Your task to perform on an android device: open chrome and create a bookmark for the current page Image 0: 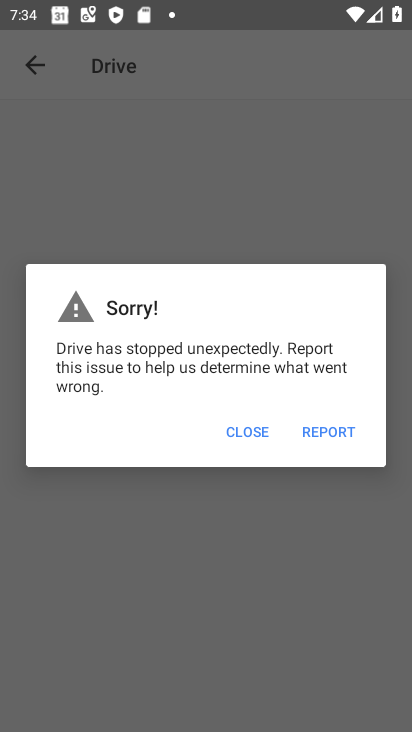
Step 0: press home button
Your task to perform on an android device: open chrome and create a bookmark for the current page Image 1: 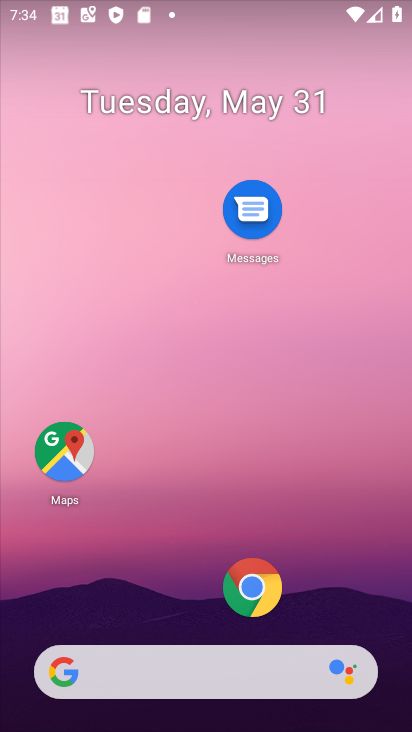
Step 1: click (257, 596)
Your task to perform on an android device: open chrome and create a bookmark for the current page Image 2: 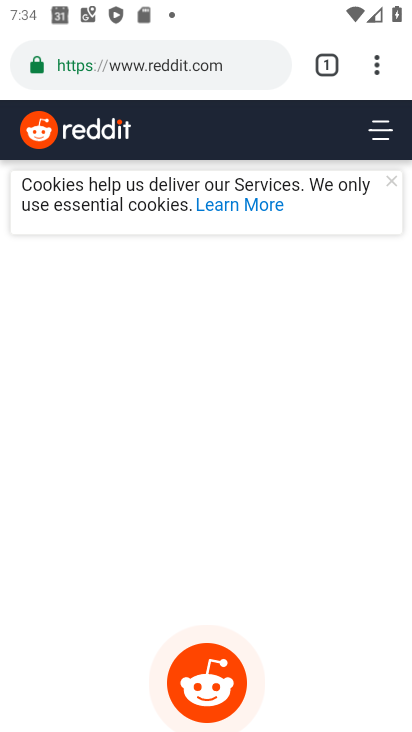
Step 2: click (375, 69)
Your task to perform on an android device: open chrome and create a bookmark for the current page Image 3: 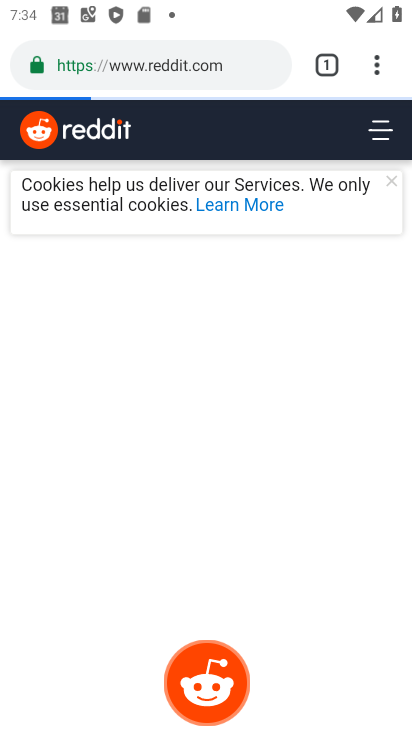
Step 3: click (378, 69)
Your task to perform on an android device: open chrome and create a bookmark for the current page Image 4: 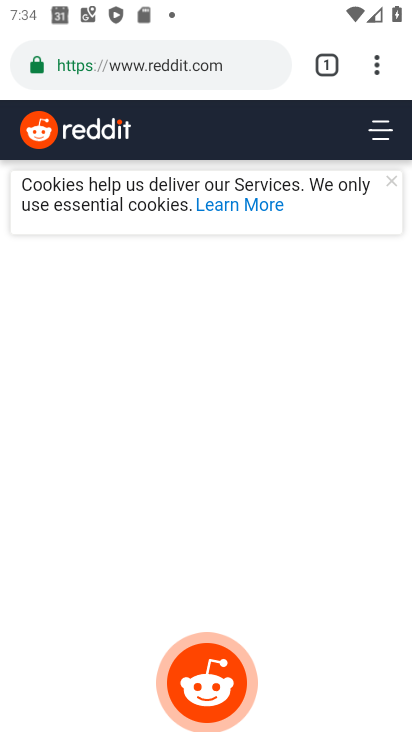
Step 4: click (378, 68)
Your task to perform on an android device: open chrome and create a bookmark for the current page Image 5: 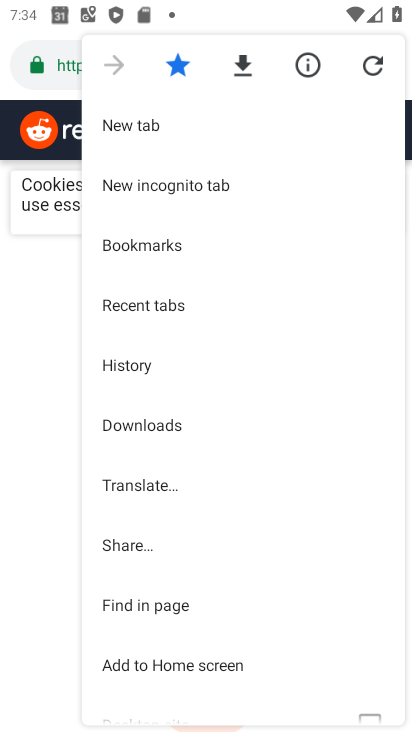
Step 5: task complete